Your task to perform on an android device: change the clock display to analog Image 0: 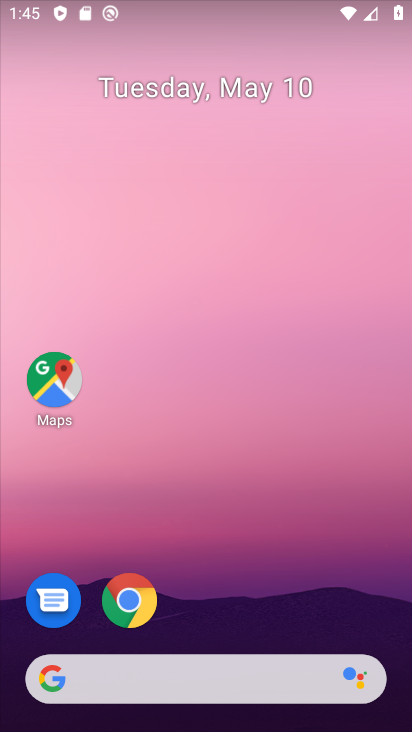
Step 0: drag from (261, 653) to (348, 190)
Your task to perform on an android device: change the clock display to analog Image 1: 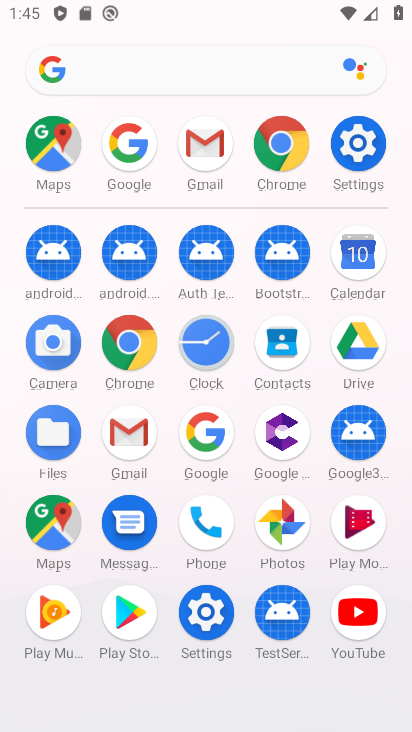
Step 1: click (213, 350)
Your task to perform on an android device: change the clock display to analog Image 2: 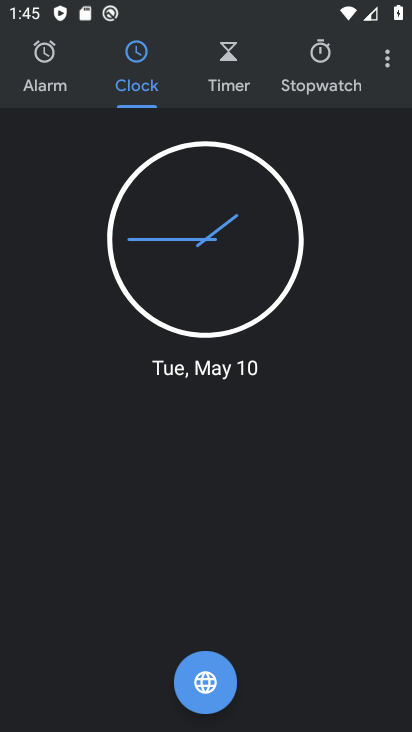
Step 2: click (392, 69)
Your task to perform on an android device: change the clock display to analog Image 3: 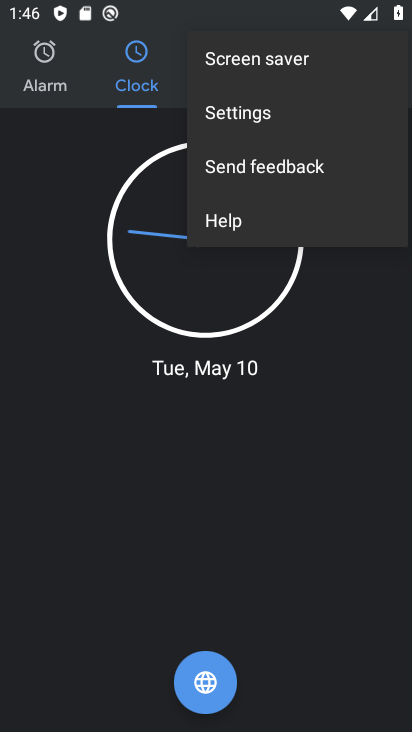
Step 3: click (268, 120)
Your task to perform on an android device: change the clock display to analog Image 4: 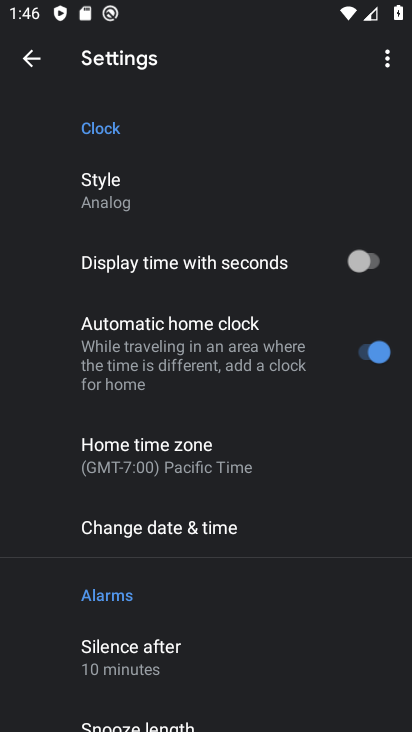
Step 4: task complete